Your task to perform on an android device: open chrome privacy settings Image 0: 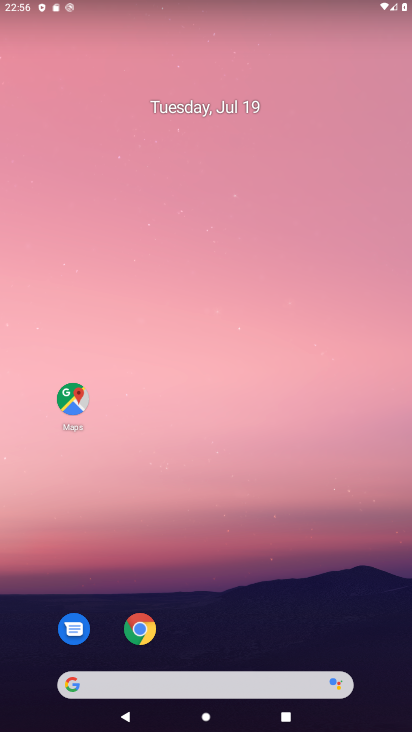
Step 0: press home button
Your task to perform on an android device: open chrome privacy settings Image 1: 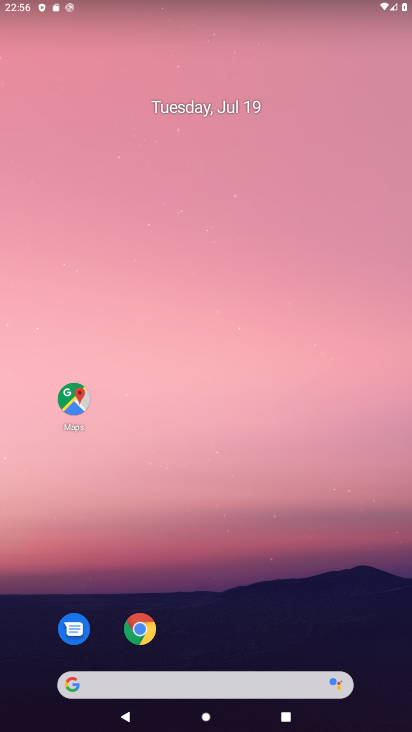
Step 1: click (136, 626)
Your task to perform on an android device: open chrome privacy settings Image 2: 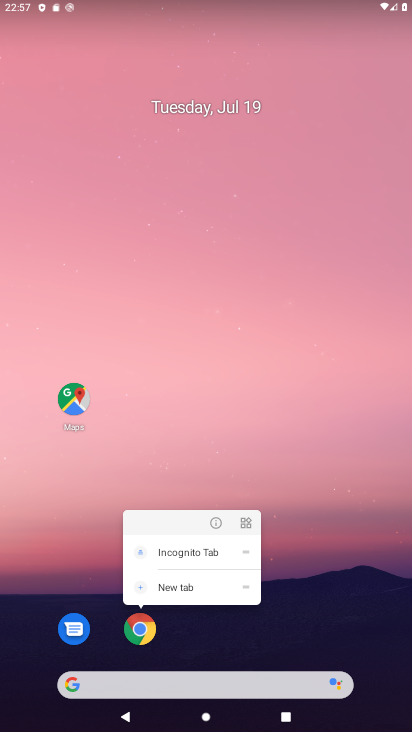
Step 2: click (136, 624)
Your task to perform on an android device: open chrome privacy settings Image 3: 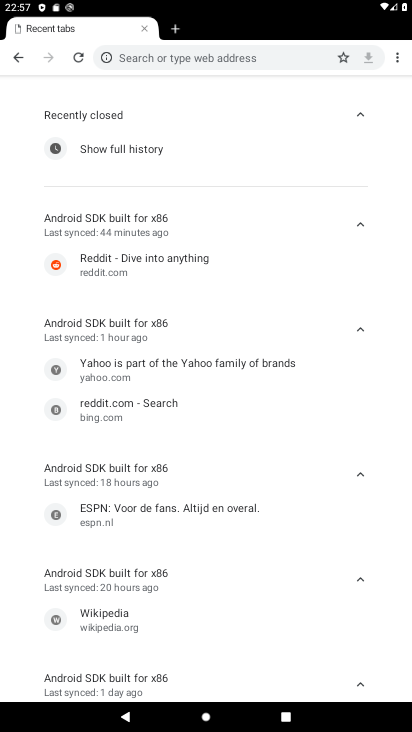
Step 3: click (394, 54)
Your task to perform on an android device: open chrome privacy settings Image 4: 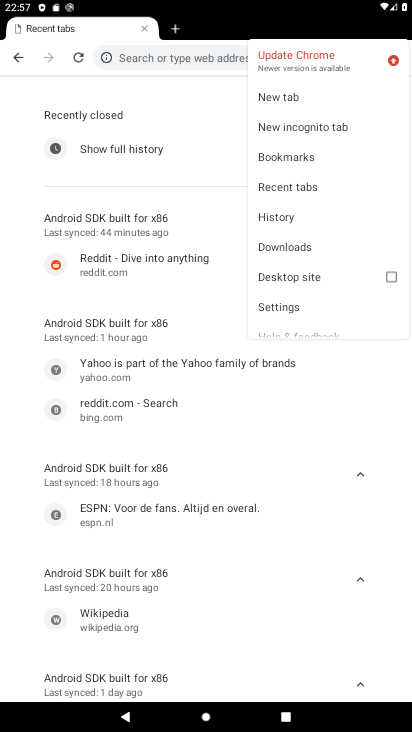
Step 4: click (302, 303)
Your task to perform on an android device: open chrome privacy settings Image 5: 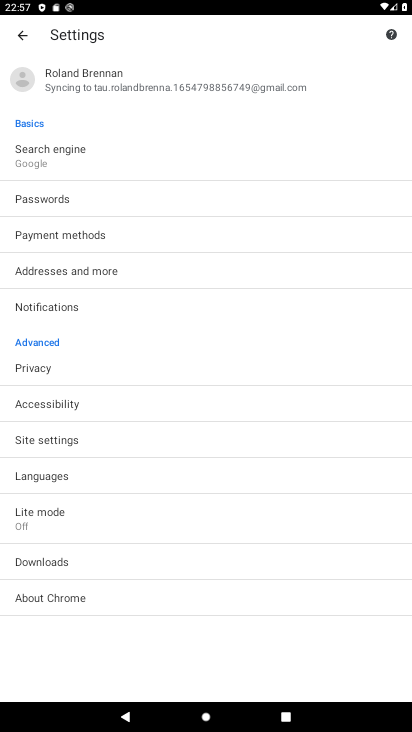
Step 5: click (56, 373)
Your task to perform on an android device: open chrome privacy settings Image 6: 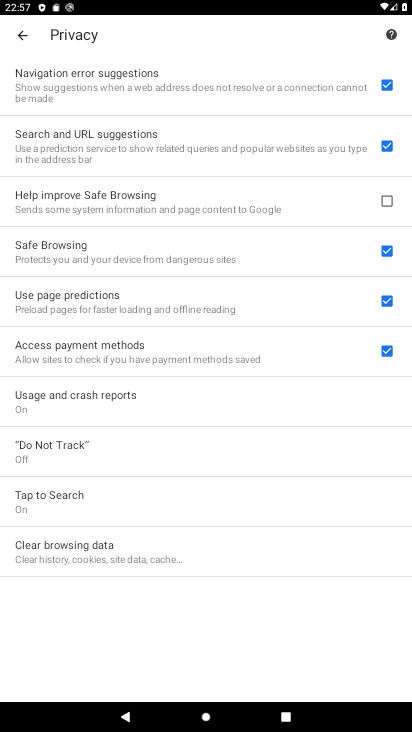
Step 6: task complete